Your task to perform on an android device: Go to display settings Image 0: 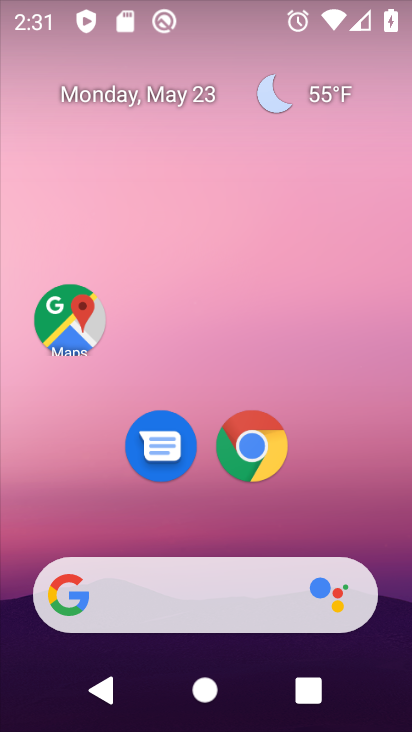
Step 0: drag from (203, 533) to (205, 135)
Your task to perform on an android device: Go to display settings Image 1: 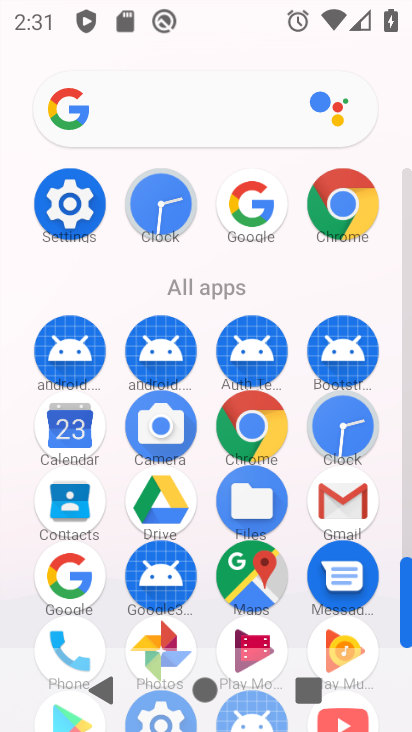
Step 1: click (52, 212)
Your task to perform on an android device: Go to display settings Image 2: 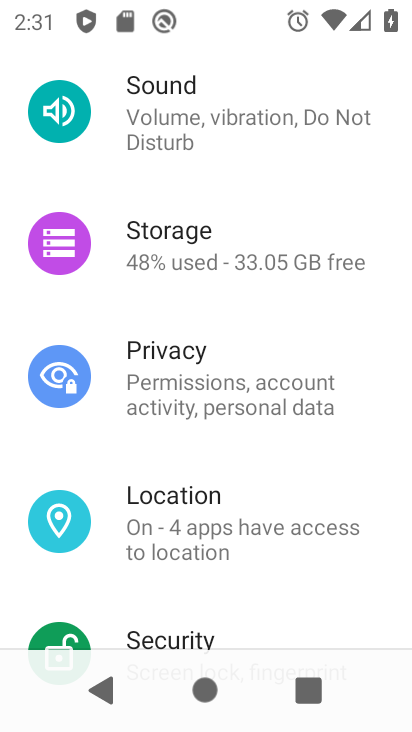
Step 2: drag from (208, 185) to (257, 499)
Your task to perform on an android device: Go to display settings Image 3: 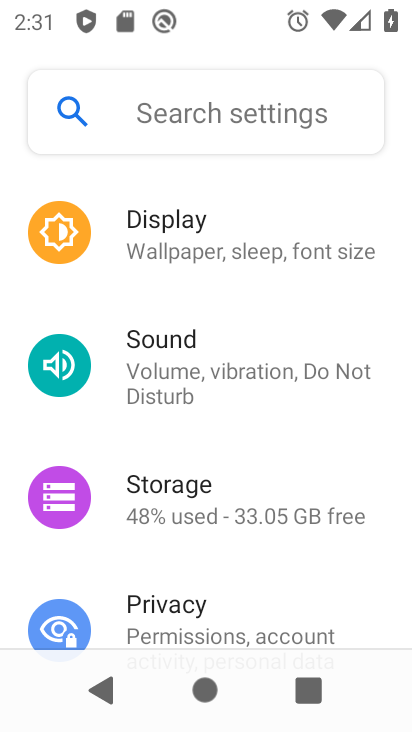
Step 3: click (217, 236)
Your task to perform on an android device: Go to display settings Image 4: 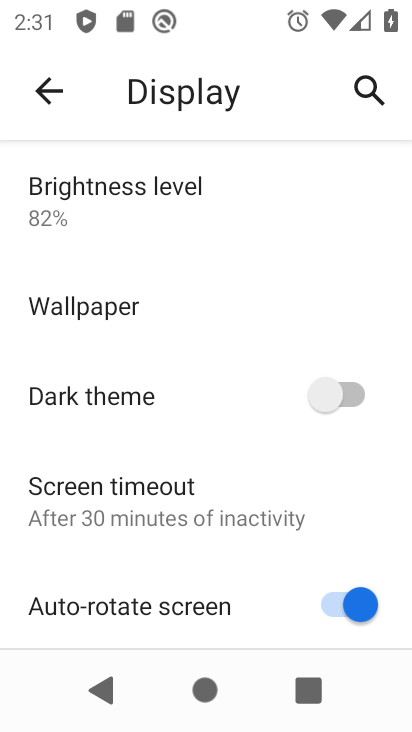
Step 4: task complete